Your task to perform on an android device: Search for "The Dispatcher" by John Scalzi on Goodreads Image 0: 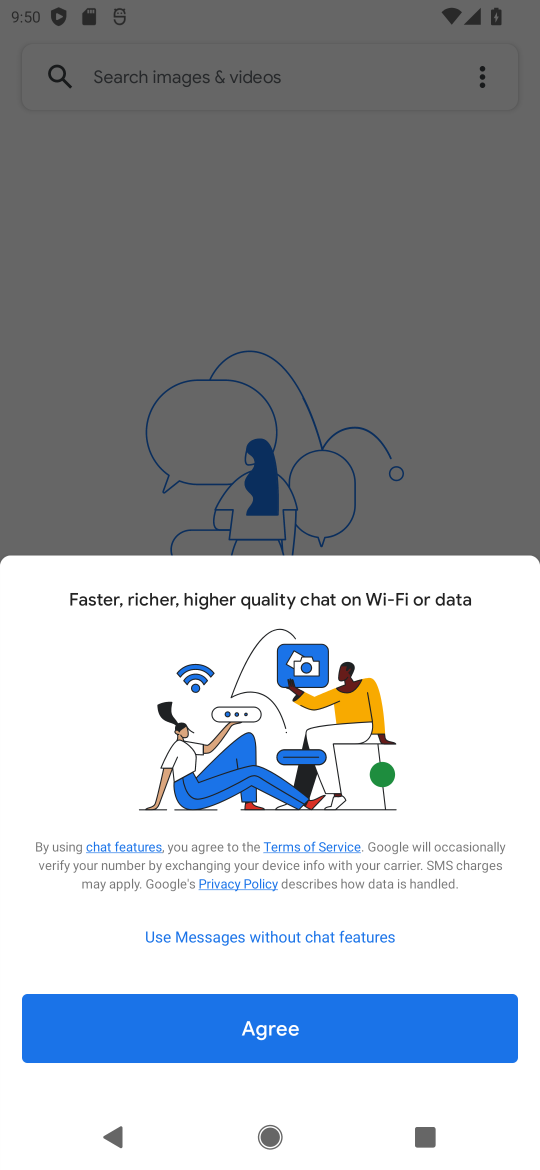
Step 0: click (427, 1007)
Your task to perform on an android device: Search for "The Dispatcher" by John Scalzi on Goodreads Image 1: 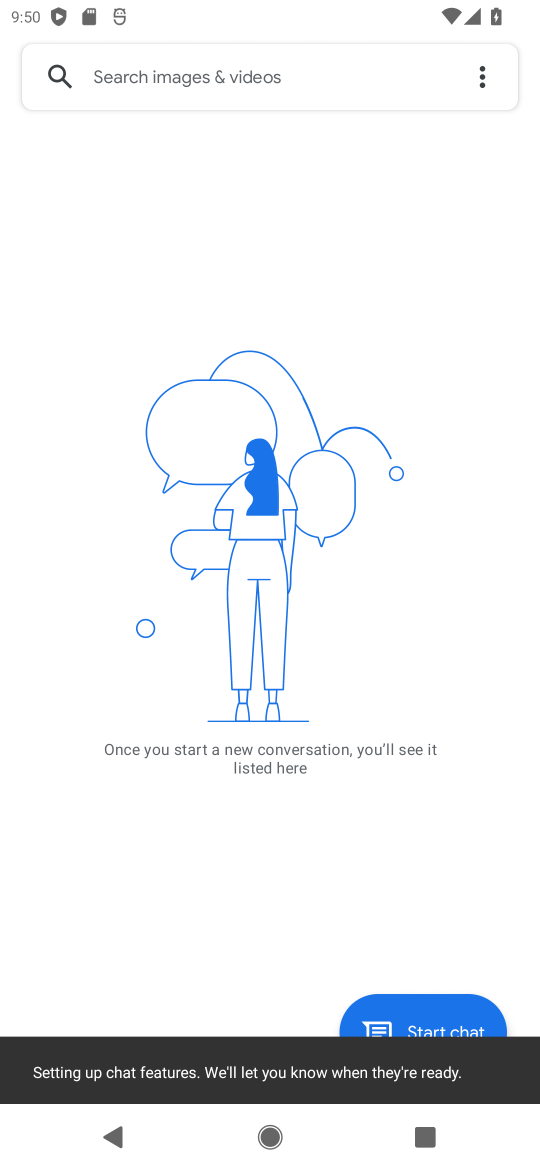
Step 1: task complete